Your task to perform on an android device: change your default location settings in chrome Image 0: 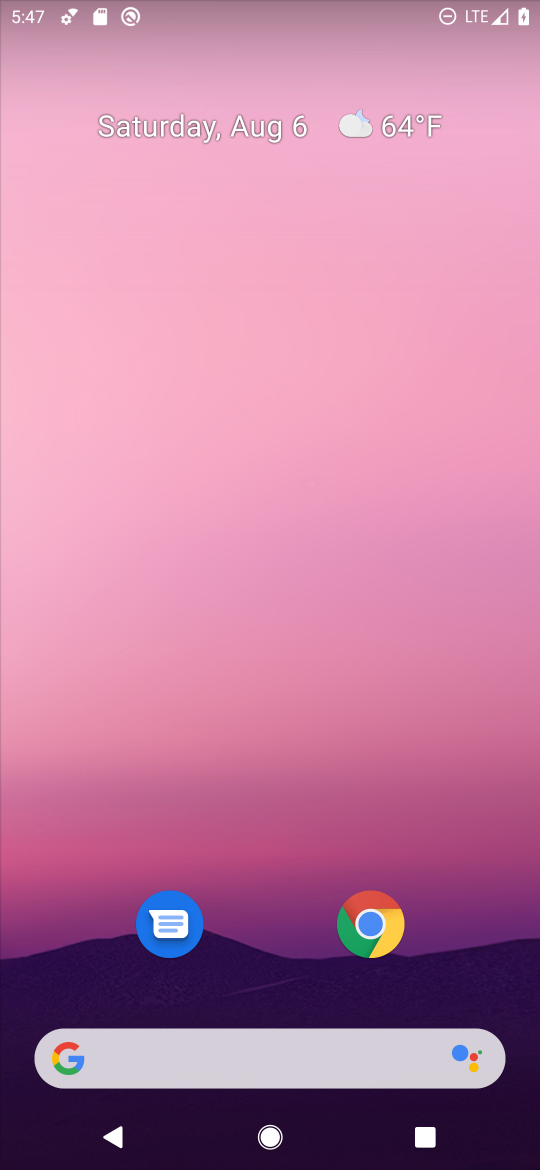
Step 0: click (372, 929)
Your task to perform on an android device: change your default location settings in chrome Image 1: 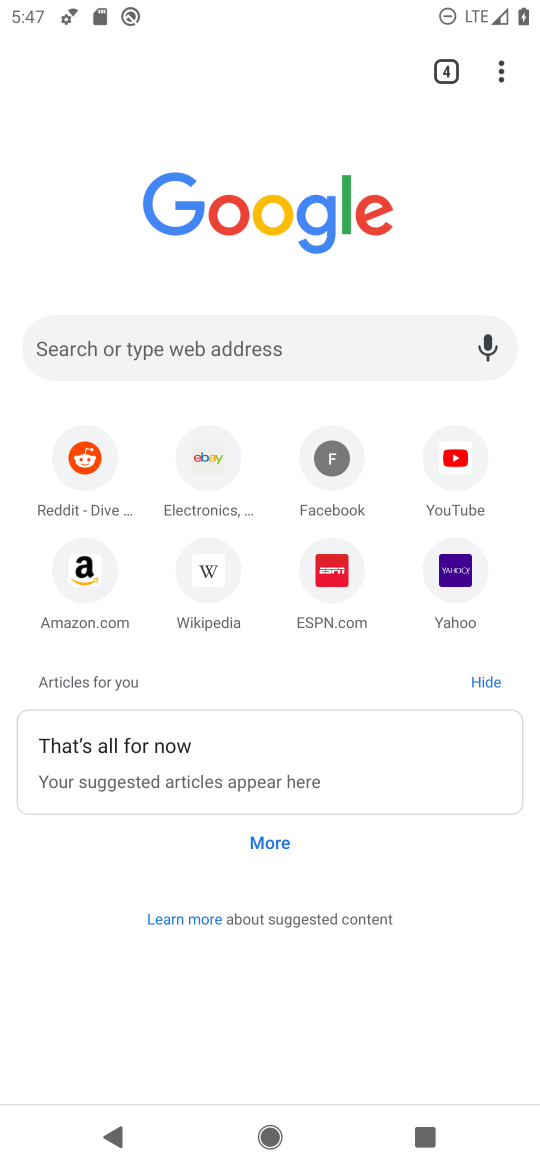
Step 1: click (501, 71)
Your task to perform on an android device: change your default location settings in chrome Image 2: 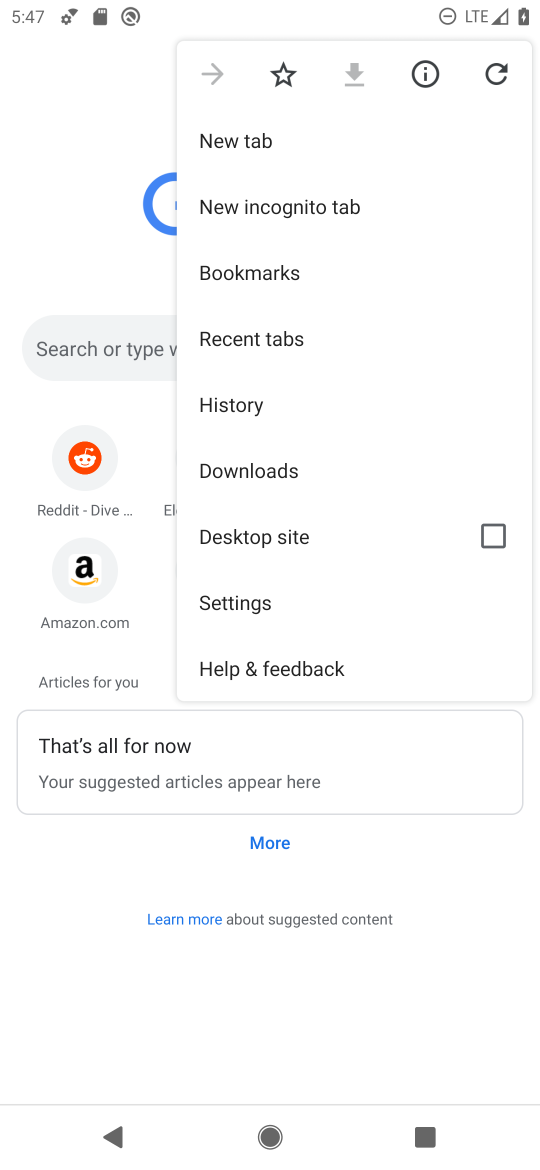
Step 2: click (246, 604)
Your task to perform on an android device: change your default location settings in chrome Image 3: 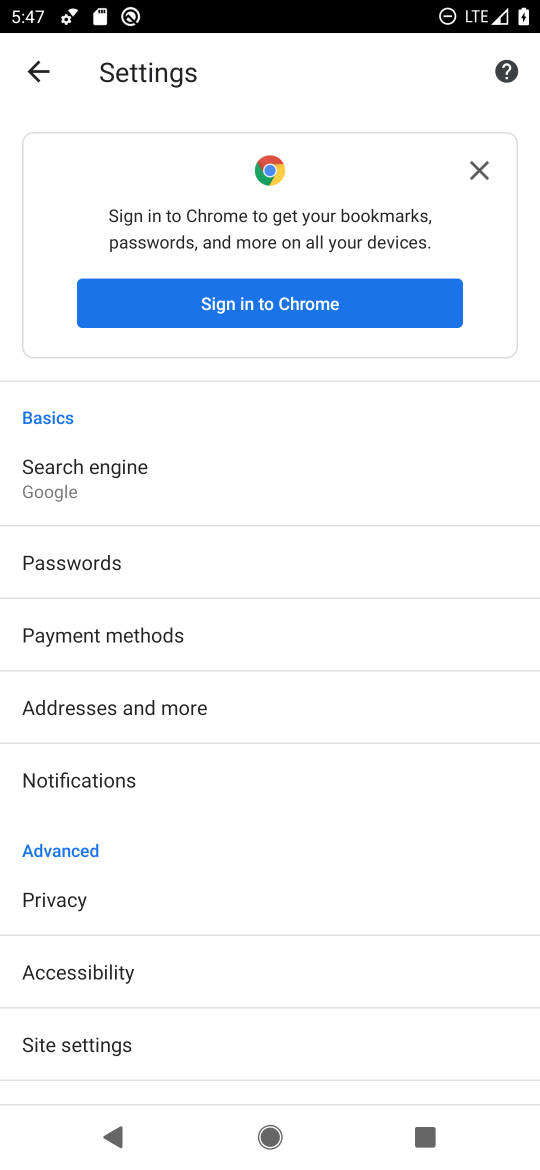
Step 3: click (82, 1041)
Your task to perform on an android device: change your default location settings in chrome Image 4: 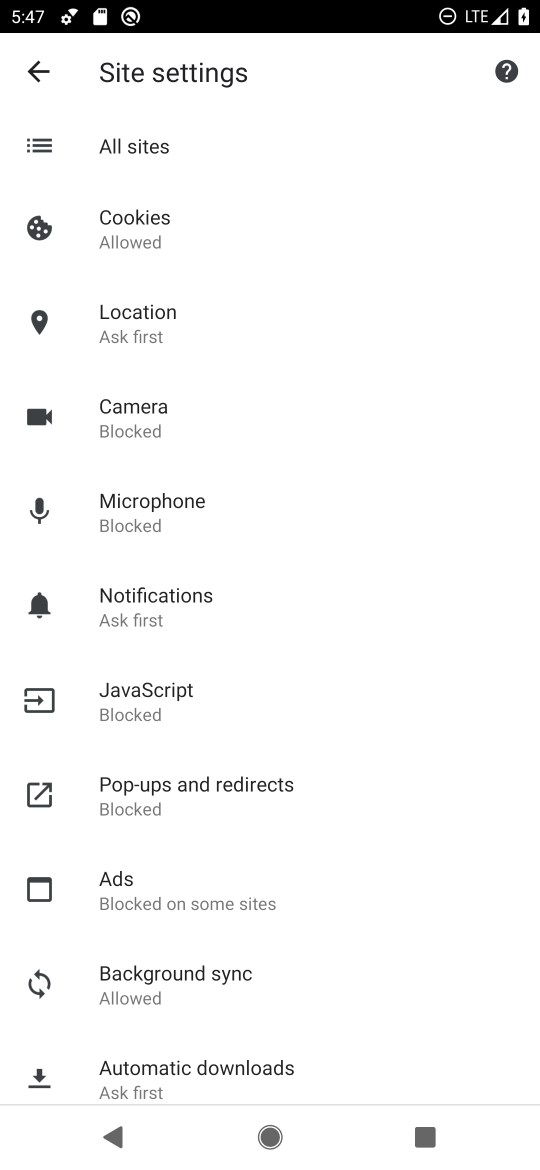
Step 4: click (170, 312)
Your task to perform on an android device: change your default location settings in chrome Image 5: 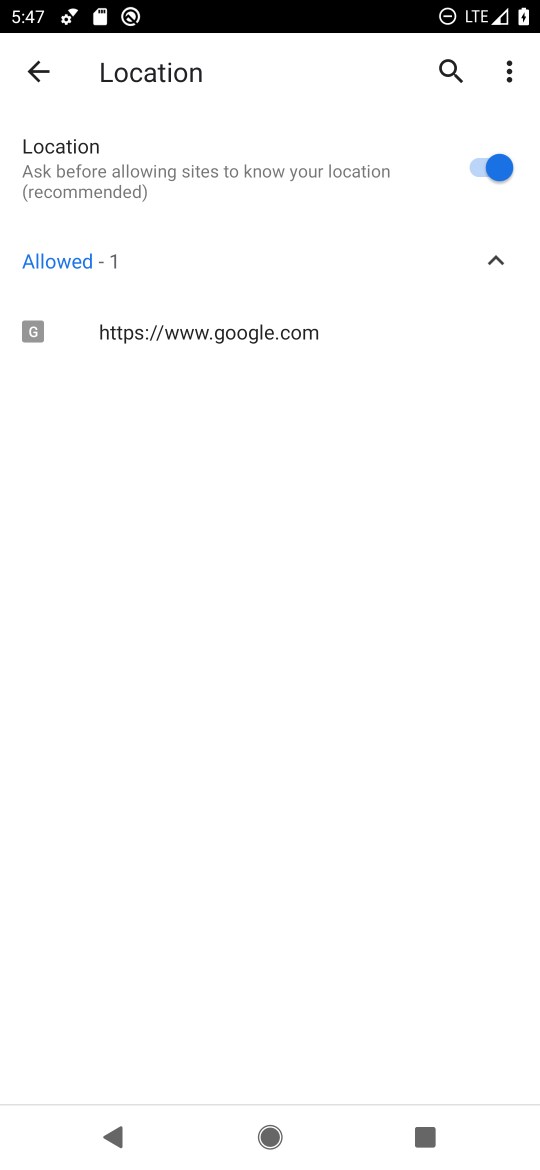
Step 5: click (495, 162)
Your task to perform on an android device: change your default location settings in chrome Image 6: 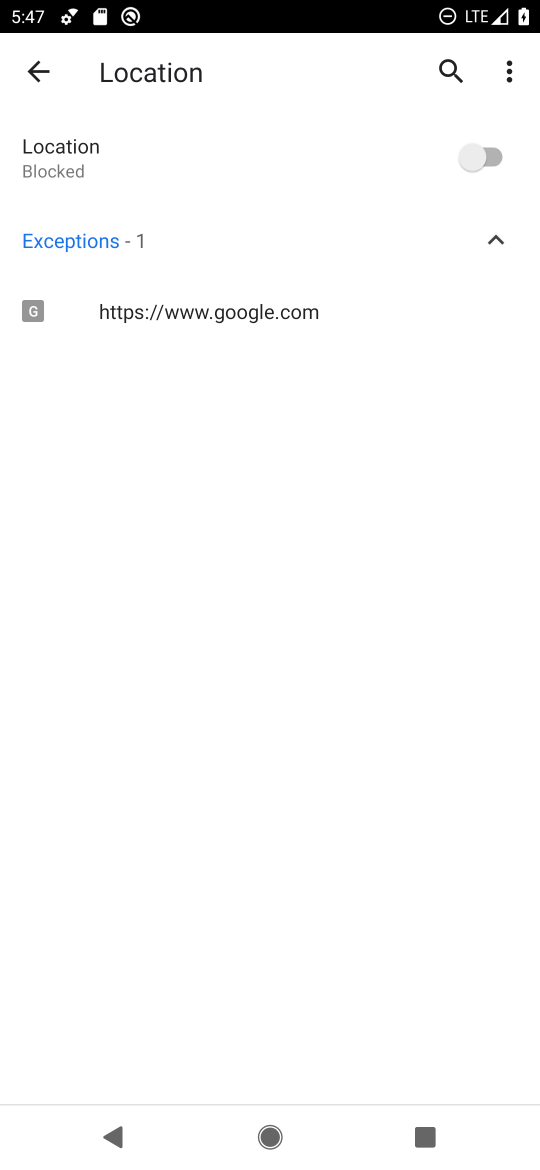
Step 6: task complete